Your task to perform on an android device: Search for sushi restaurants on Maps Image 0: 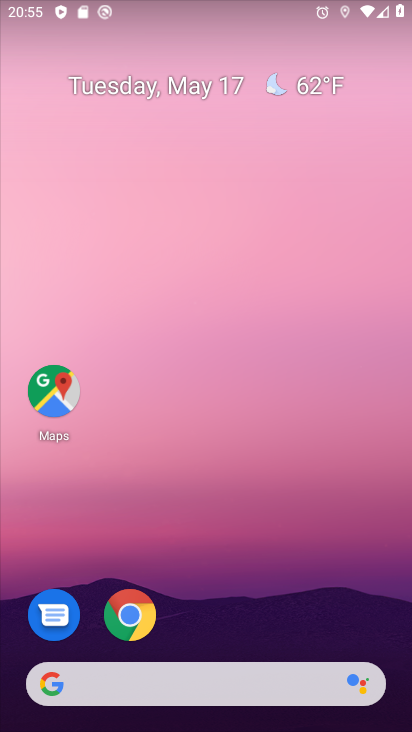
Step 0: click (38, 384)
Your task to perform on an android device: Search for sushi restaurants on Maps Image 1: 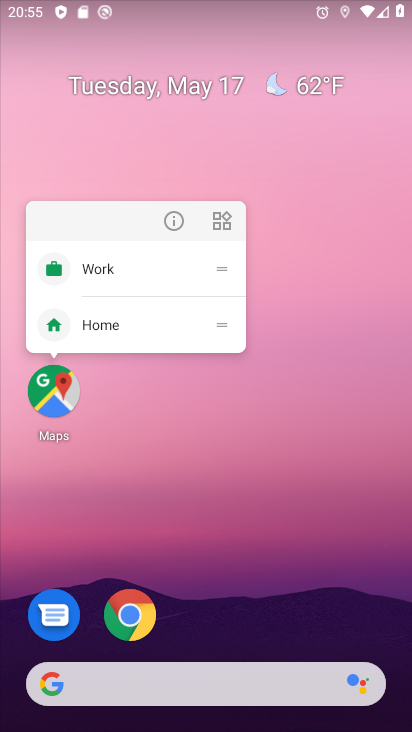
Step 1: click (62, 390)
Your task to perform on an android device: Search for sushi restaurants on Maps Image 2: 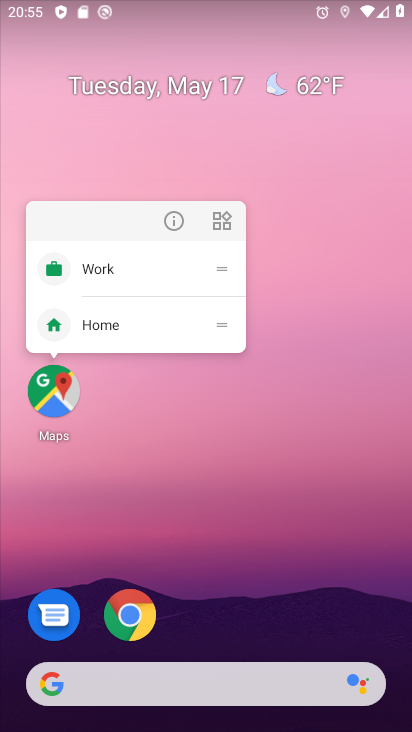
Step 2: click (47, 381)
Your task to perform on an android device: Search for sushi restaurants on Maps Image 3: 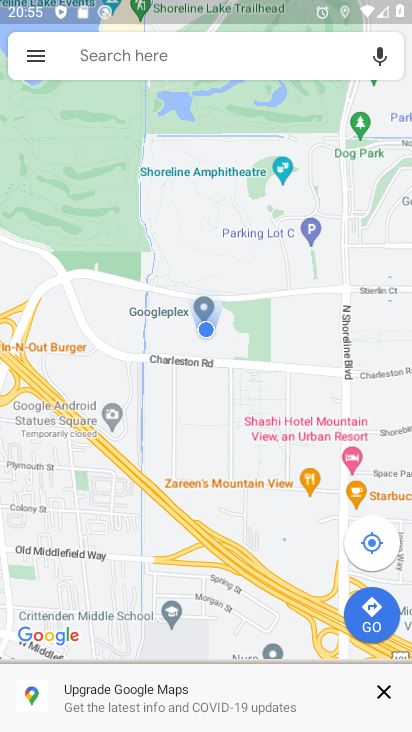
Step 3: click (150, 60)
Your task to perform on an android device: Search for sushi restaurants on Maps Image 4: 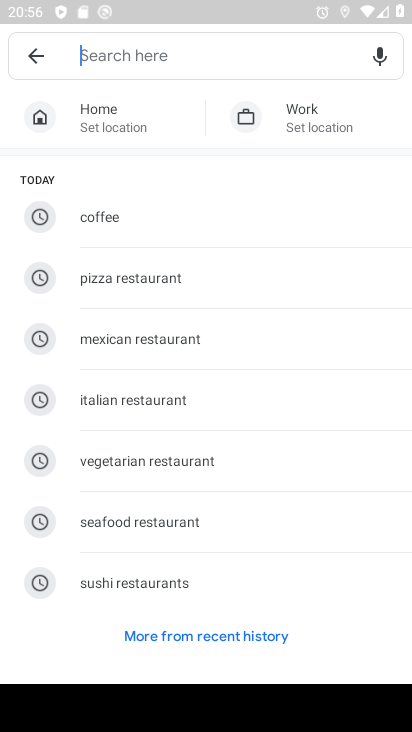
Step 4: type " sushi restaurants"
Your task to perform on an android device: Search for sushi restaurants on Maps Image 5: 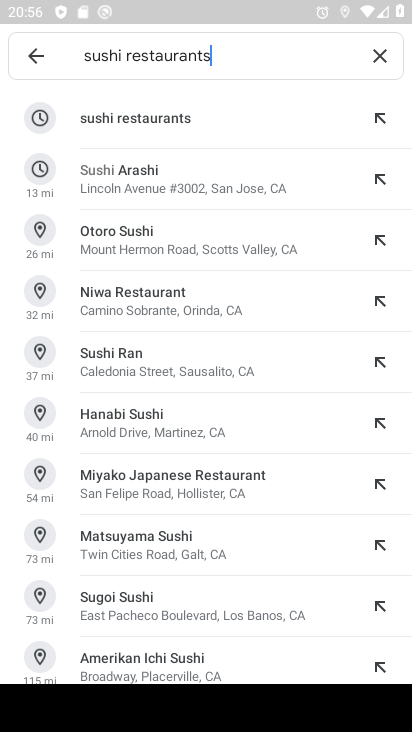
Step 5: click (168, 121)
Your task to perform on an android device: Search for sushi restaurants on Maps Image 6: 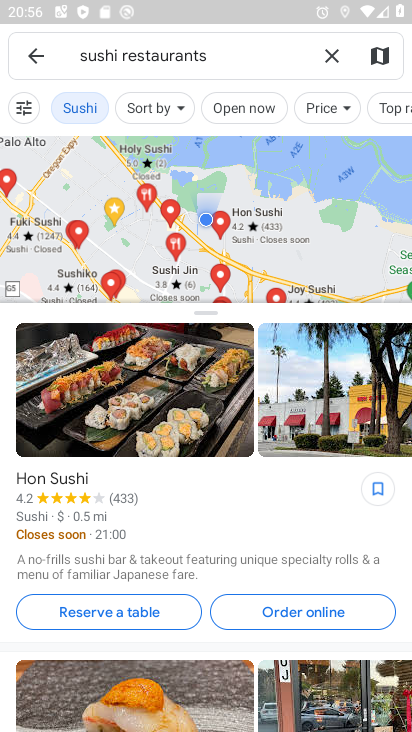
Step 6: task complete